Your task to perform on an android device: Is it going to rain today? Image 0: 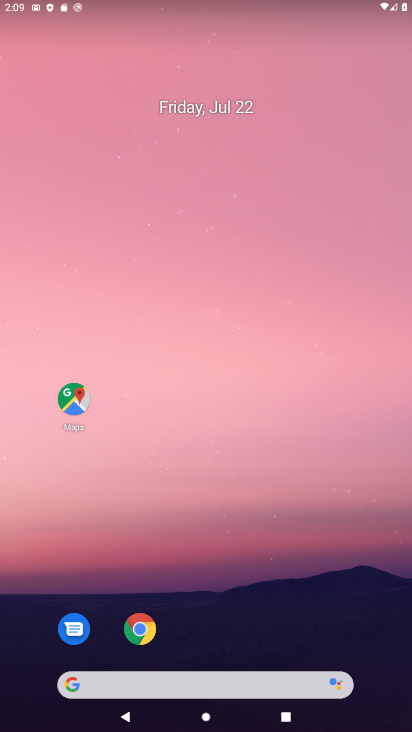
Step 0: click (174, 685)
Your task to perform on an android device: Is it going to rain today? Image 1: 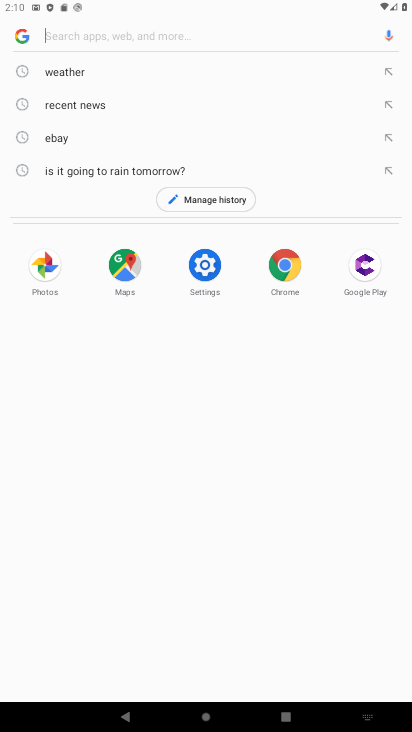
Step 1: click (147, 66)
Your task to perform on an android device: Is it going to rain today? Image 2: 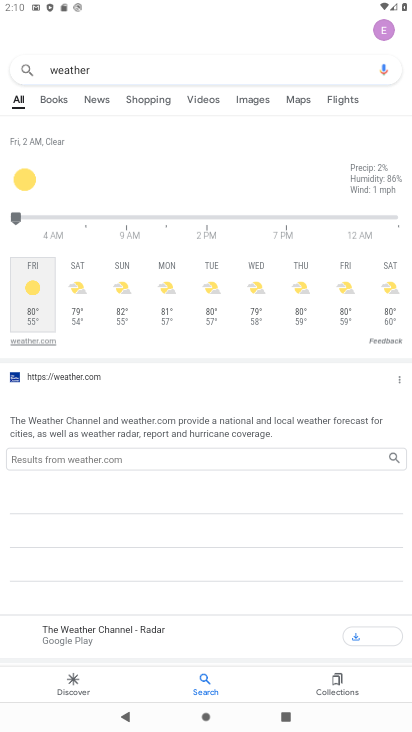
Step 2: task complete